Your task to perform on an android device: turn off improve location accuracy Image 0: 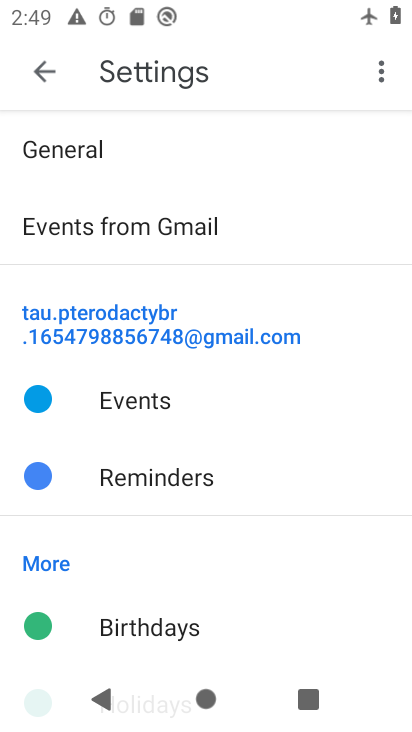
Step 0: press home button
Your task to perform on an android device: turn off improve location accuracy Image 1: 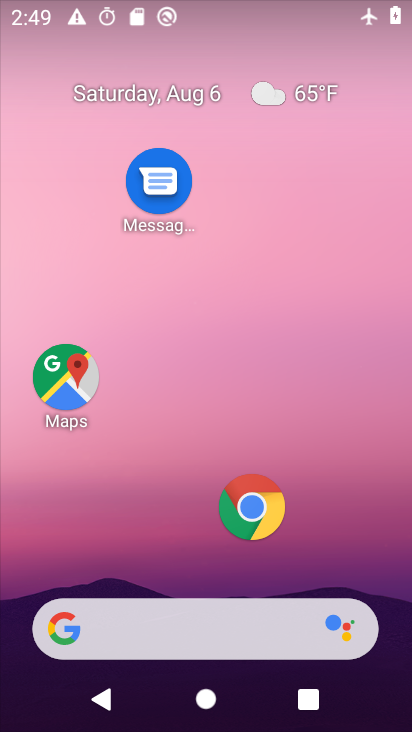
Step 1: drag from (183, 560) to (181, 164)
Your task to perform on an android device: turn off improve location accuracy Image 2: 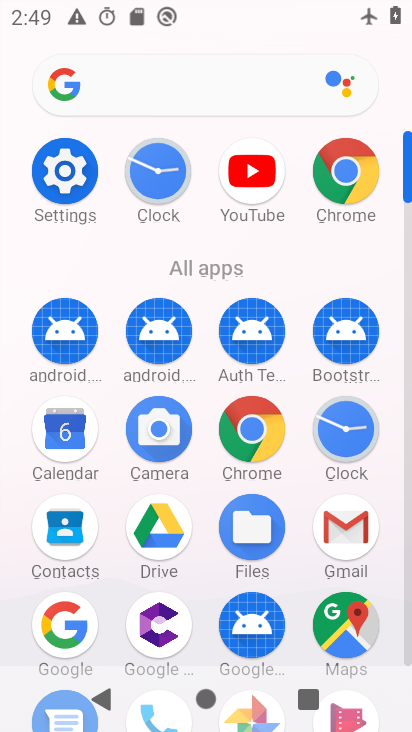
Step 2: click (61, 197)
Your task to perform on an android device: turn off improve location accuracy Image 3: 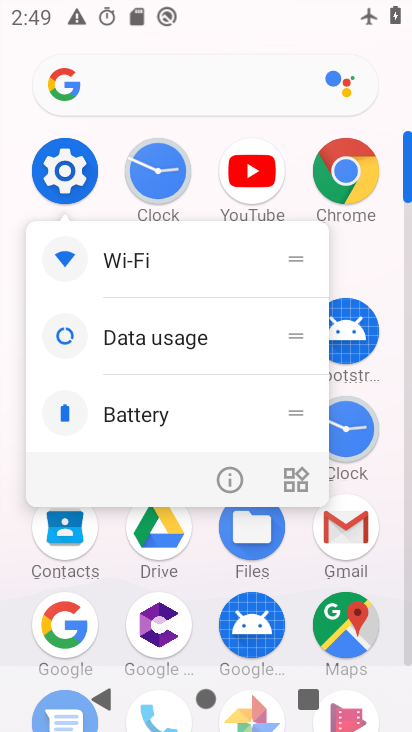
Step 3: click (59, 152)
Your task to perform on an android device: turn off improve location accuracy Image 4: 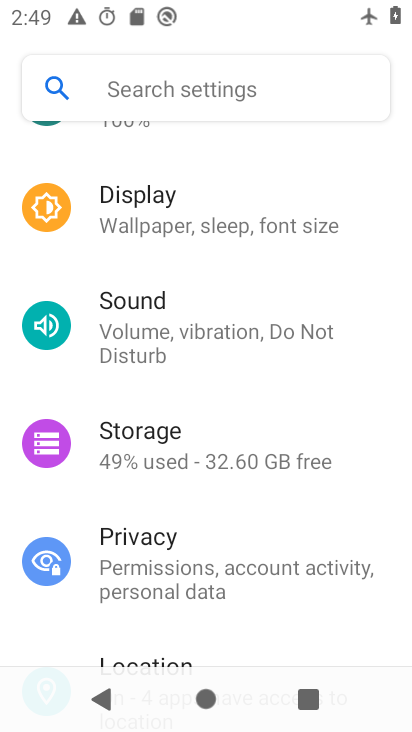
Step 4: drag from (171, 545) to (177, 412)
Your task to perform on an android device: turn off improve location accuracy Image 5: 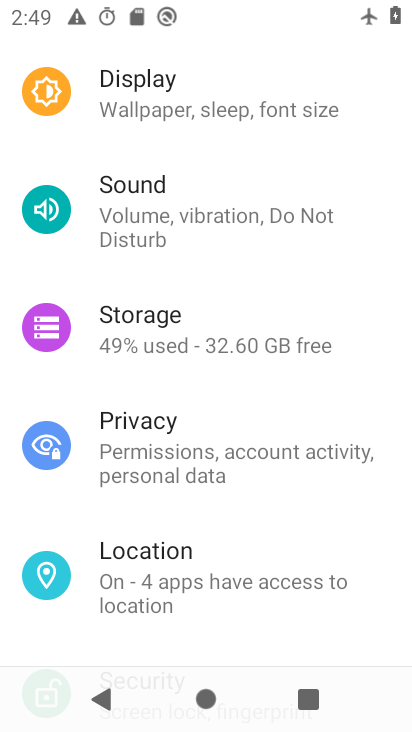
Step 5: click (164, 578)
Your task to perform on an android device: turn off improve location accuracy Image 6: 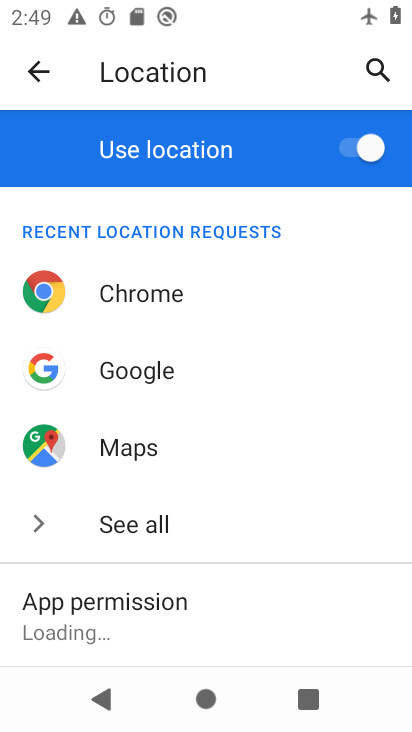
Step 6: drag from (155, 602) to (165, 357)
Your task to perform on an android device: turn off improve location accuracy Image 7: 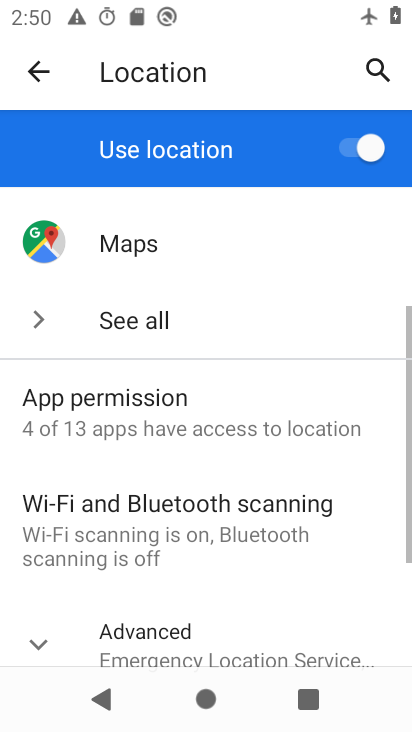
Step 7: drag from (159, 565) to (205, 265)
Your task to perform on an android device: turn off improve location accuracy Image 8: 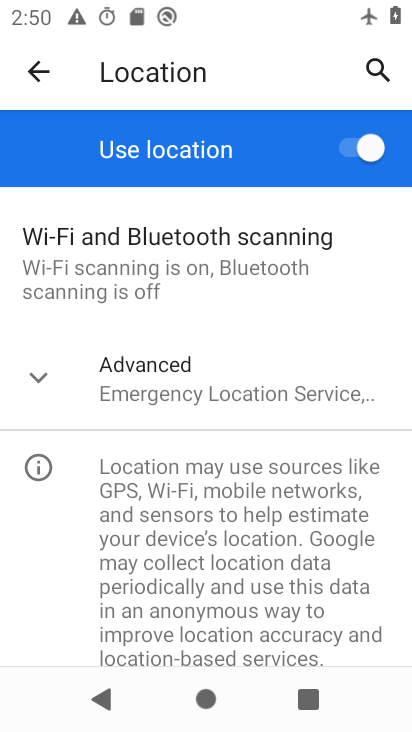
Step 8: click (48, 386)
Your task to perform on an android device: turn off improve location accuracy Image 9: 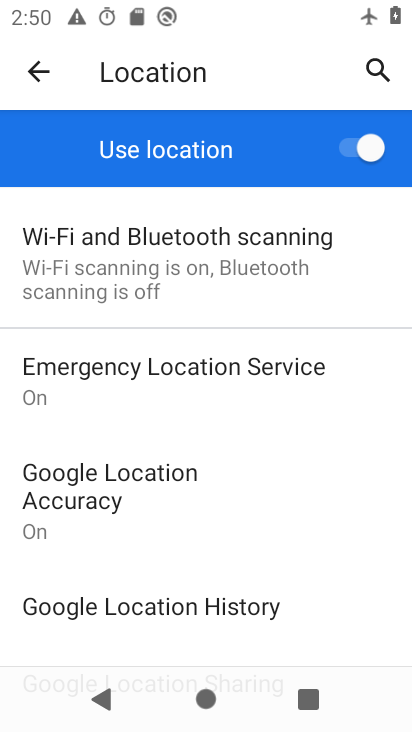
Step 9: click (143, 493)
Your task to perform on an android device: turn off improve location accuracy Image 10: 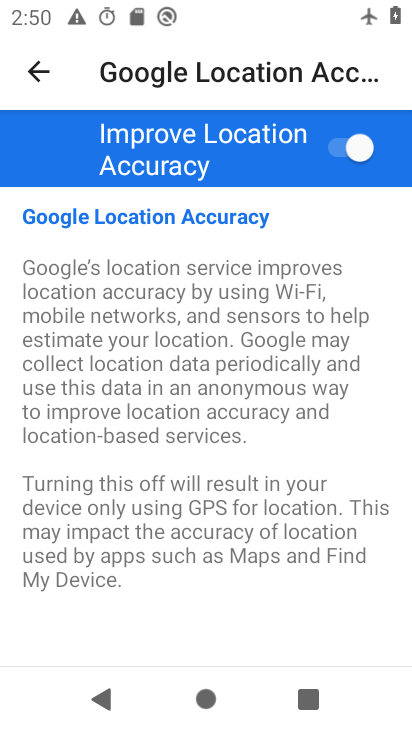
Step 10: click (308, 143)
Your task to perform on an android device: turn off improve location accuracy Image 11: 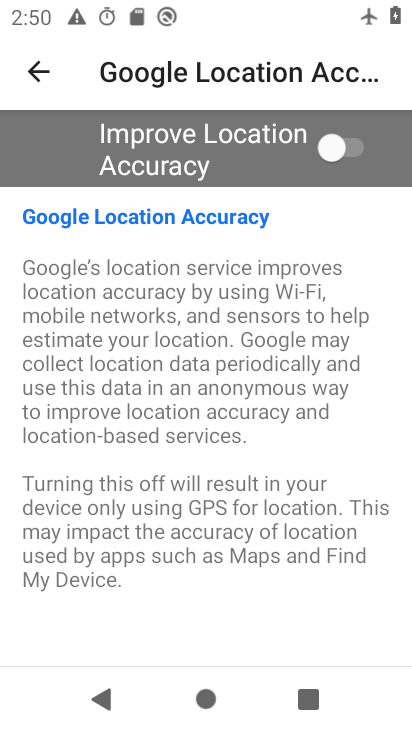
Step 11: task complete